Your task to perform on an android device: Add "razer blade" to the cart on target, then select checkout. Image 0: 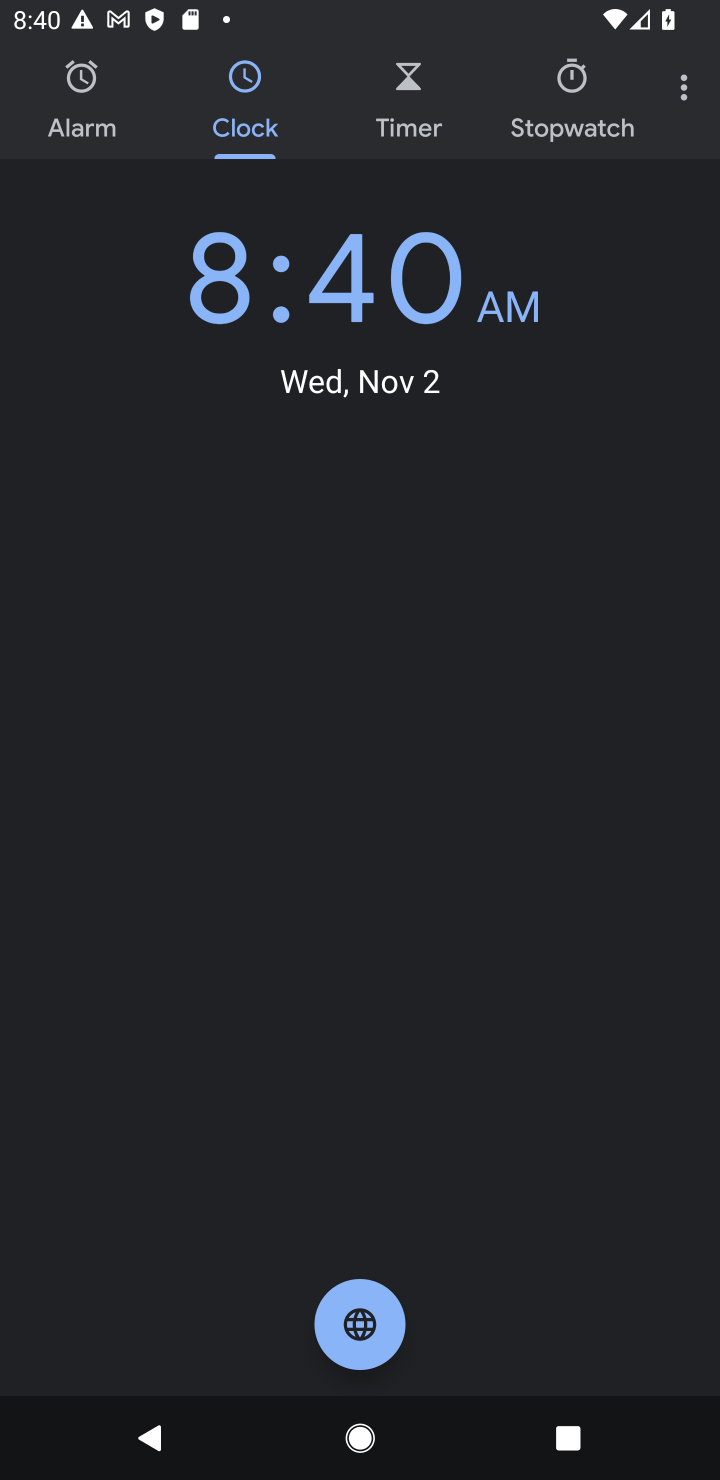
Step 0: press home button
Your task to perform on an android device: Add "razer blade" to the cart on target, then select checkout. Image 1: 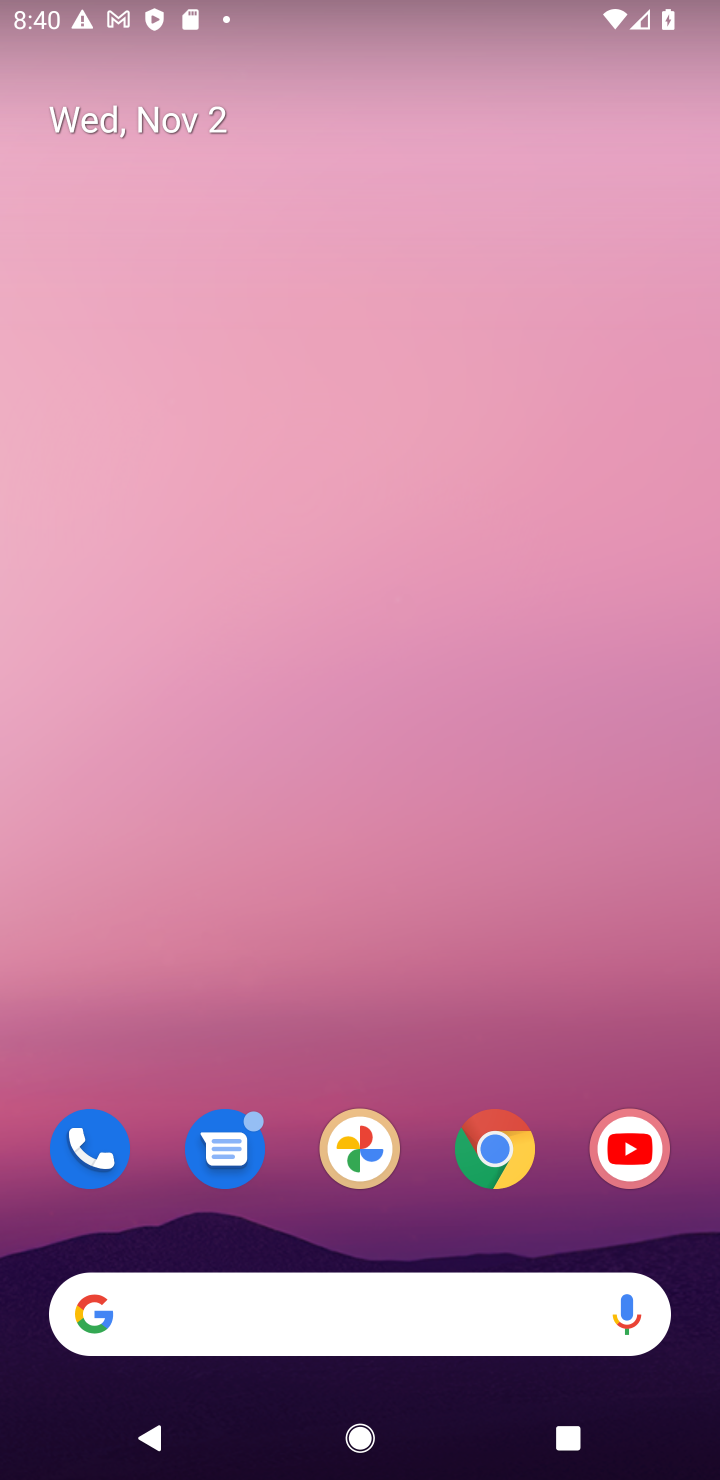
Step 1: click (506, 1148)
Your task to perform on an android device: Add "razer blade" to the cart on target, then select checkout. Image 2: 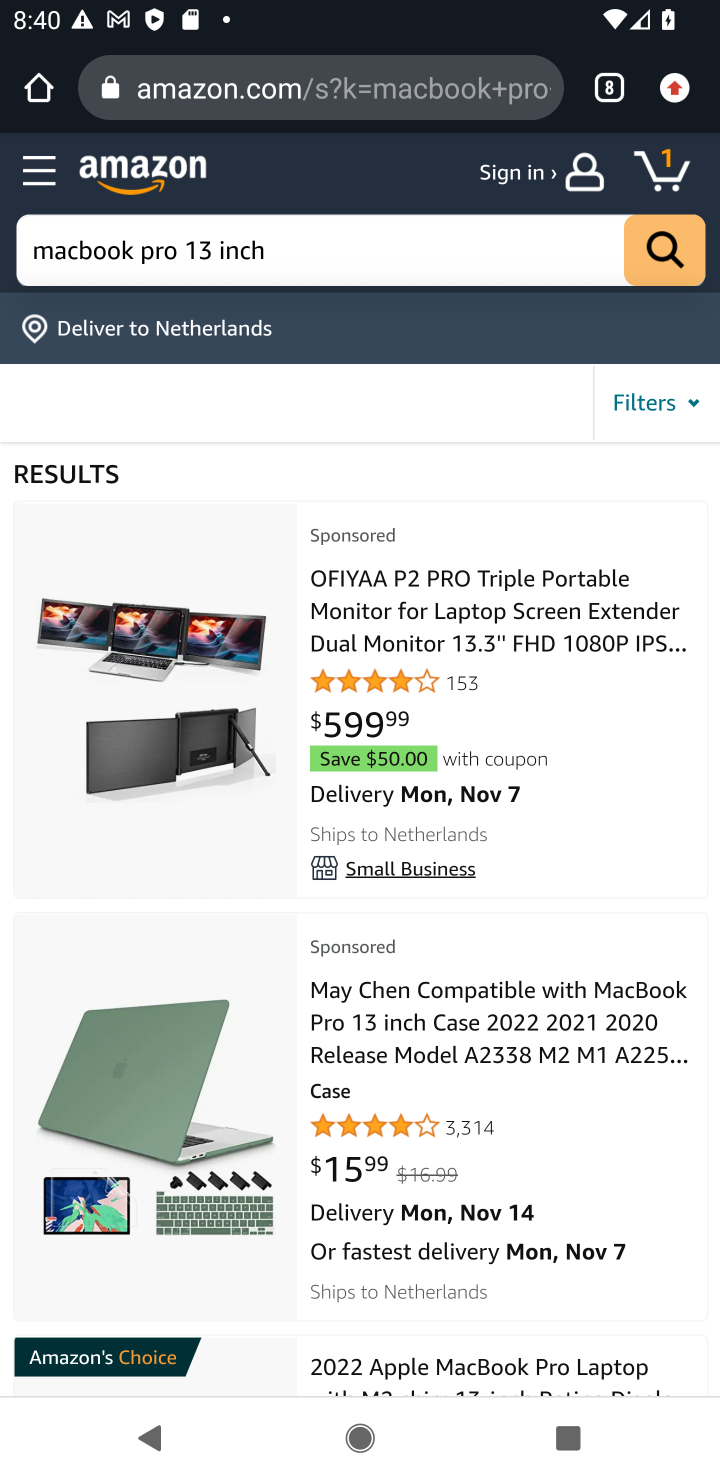
Step 2: drag from (682, 75) to (412, 288)
Your task to perform on an android device: Add "razer blade" to the cart on target, then select checkout. Image 3: 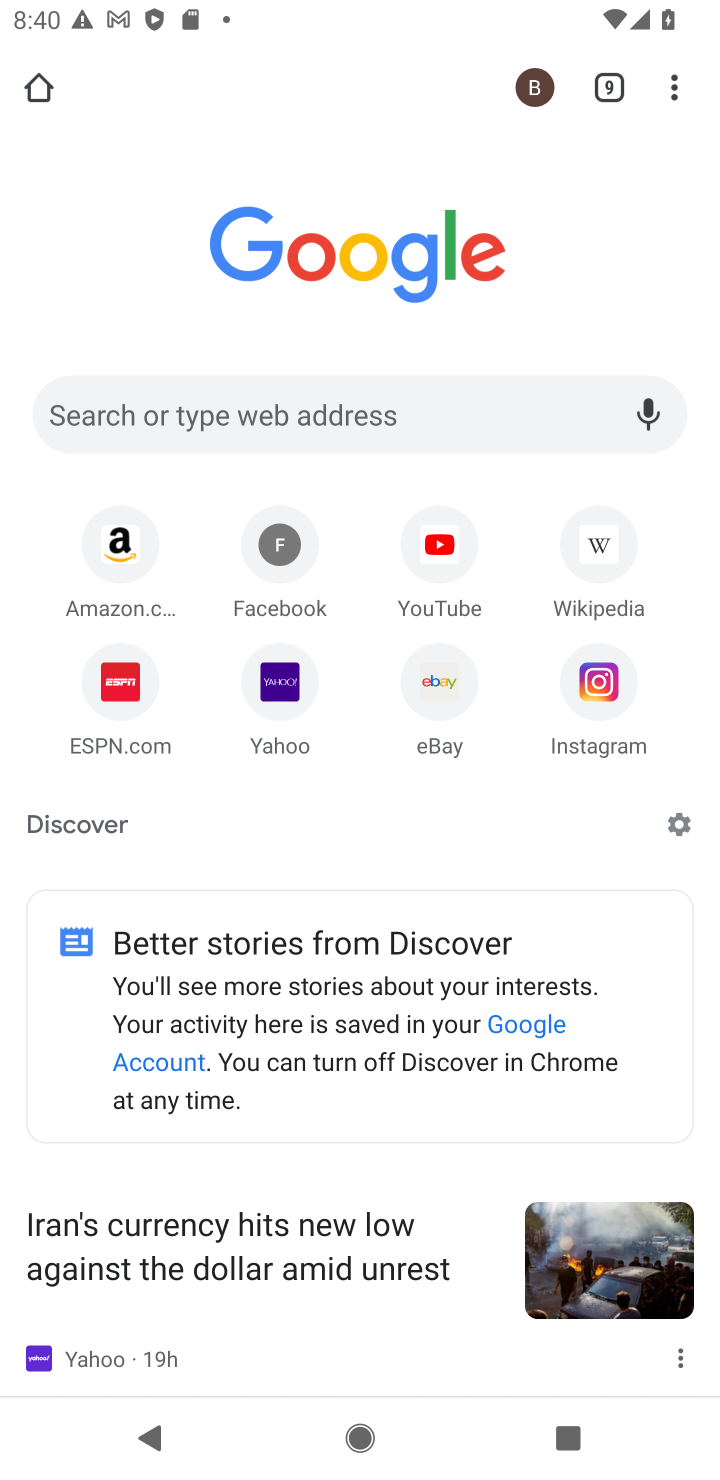
Step 3: click (270, 410)
Your task to perform on an android device: Add "razer blade" to the cart on target, then select checkout. Image 4: 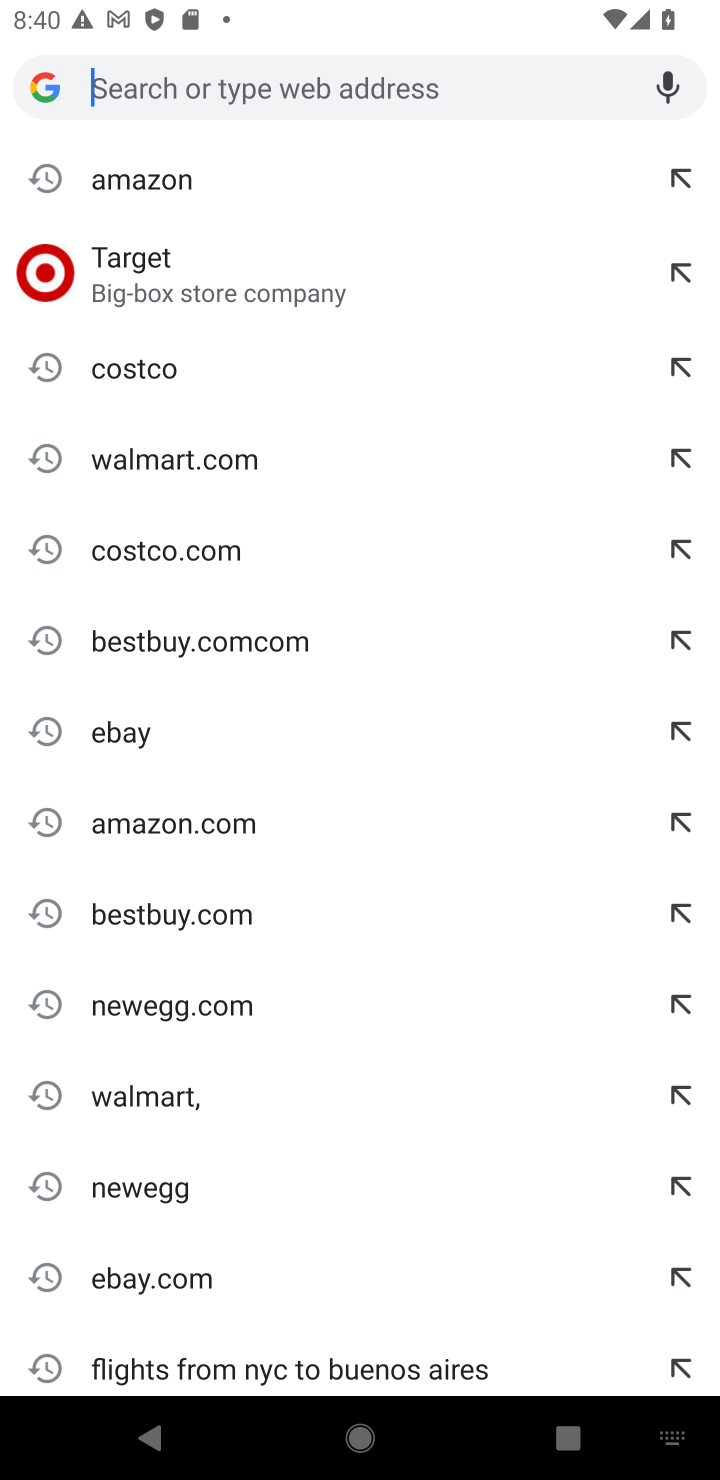
Step 4: type "target"
Your task to perform on an android device: Add "razer blade" to the cart on target, then select checkout. Image 5: 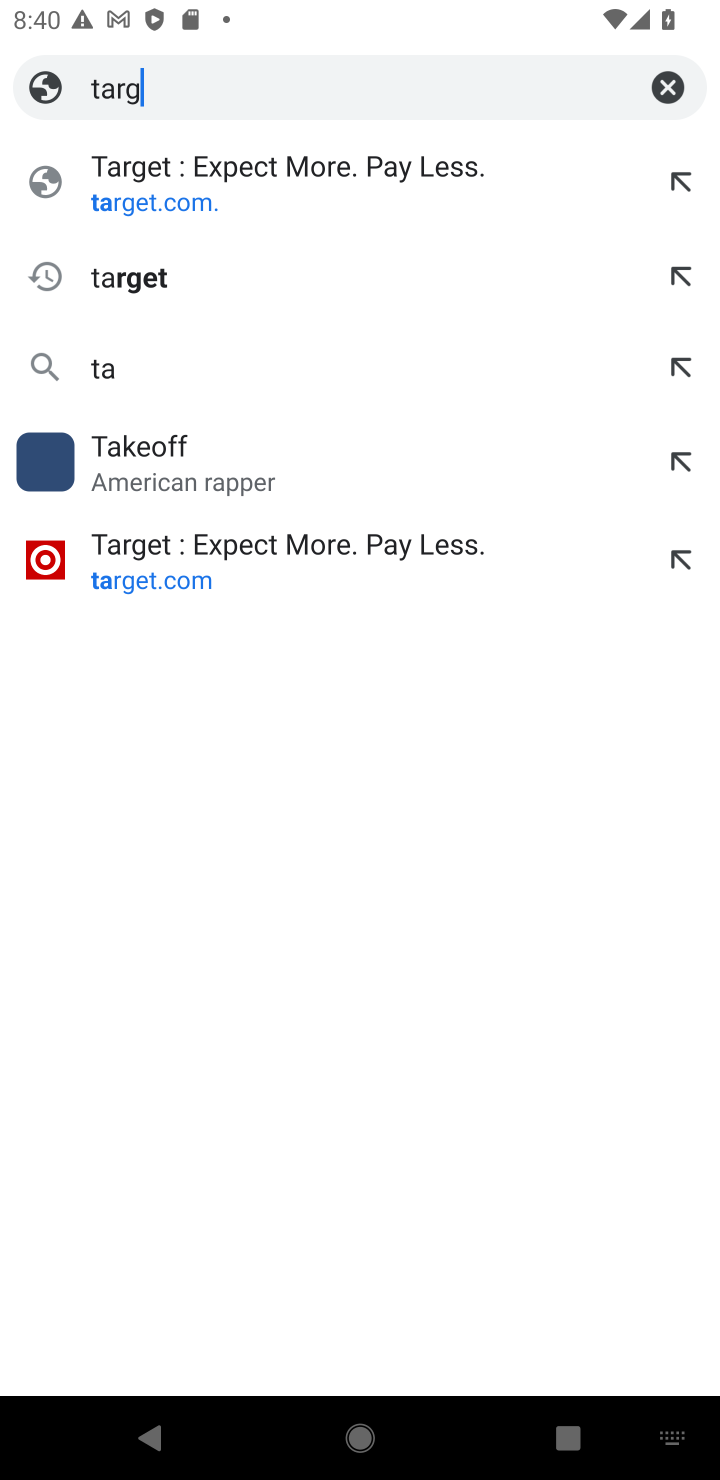
Step 5: type ""
Your task to perform on an android device: Add "razer blade" to the cart on target, then select checkout. Image 6: 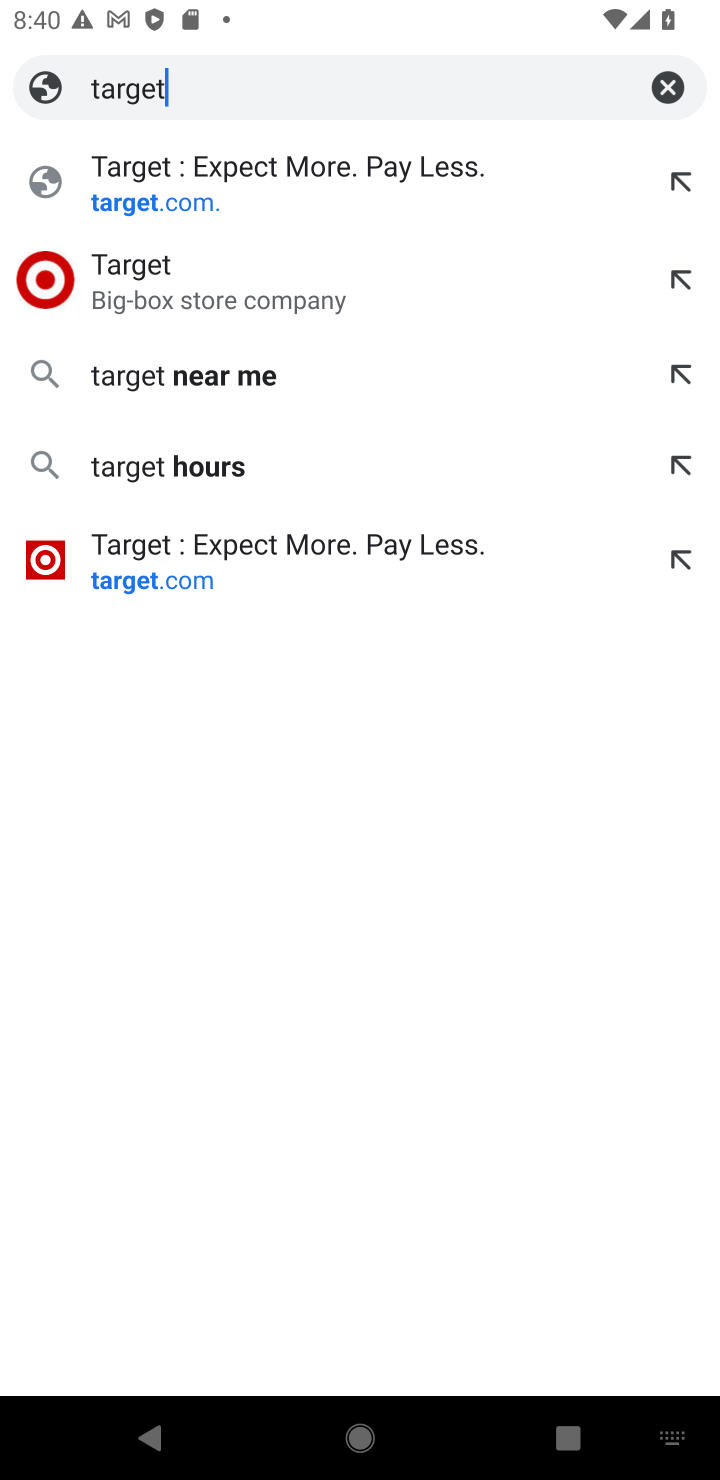
Step 6: click (143, 285)
Your task to perform on an android device: Add "razer blade" to the cart on target, then select checkout. Image 7: 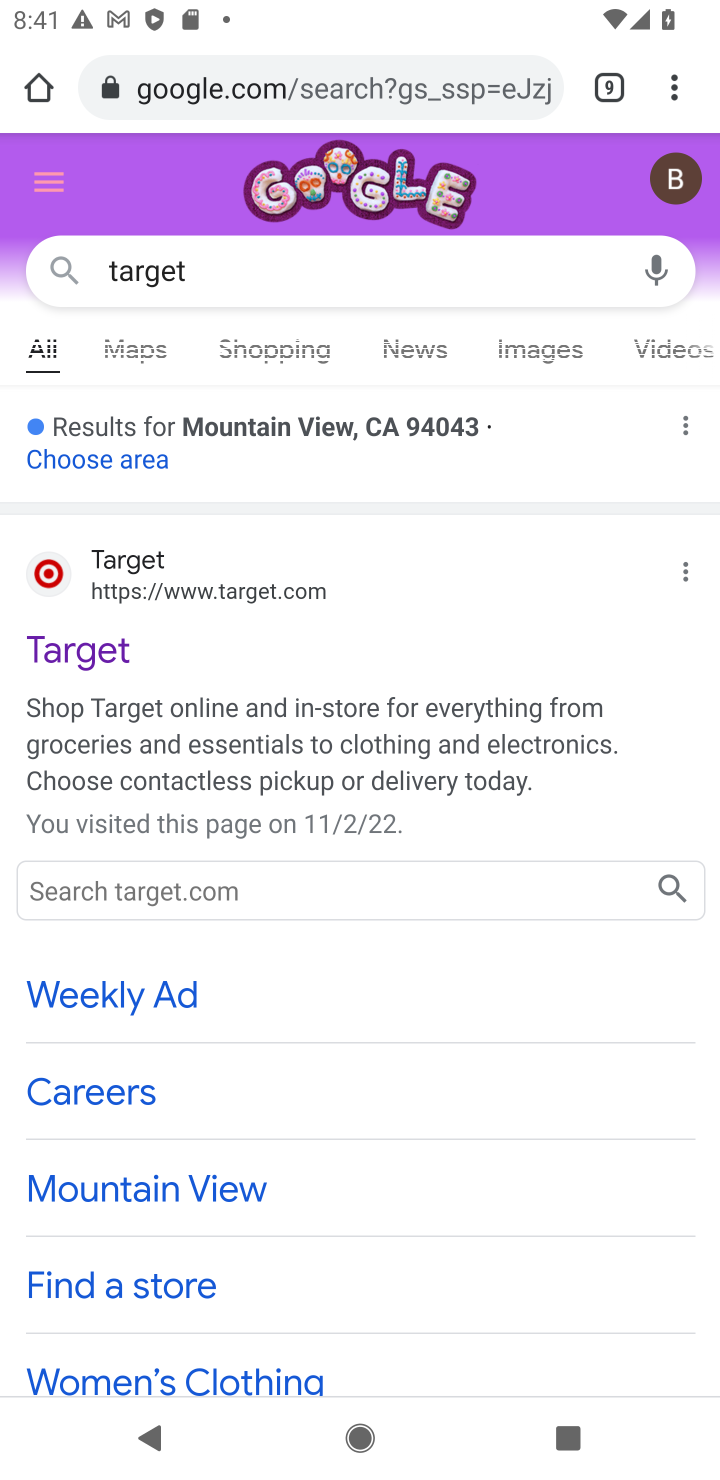
Step 7: click (9, 592)
Your task to perform on an android device: Add "razer blade" to the cart on target, then select checkout. Image 8: 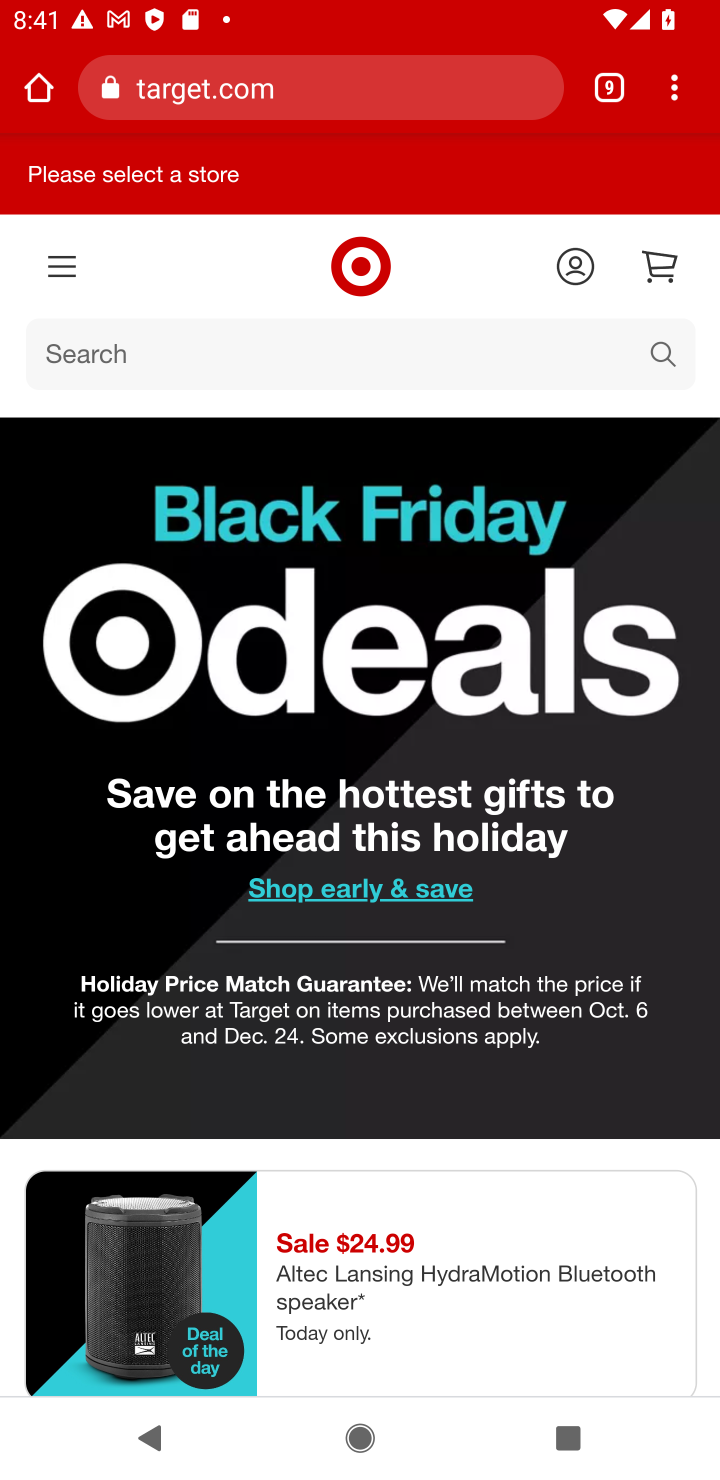
Step 8: click (217, 365)
Your task to perform on an android device: Add "razer blade" to the cart on target, then select checkout. Image 9: 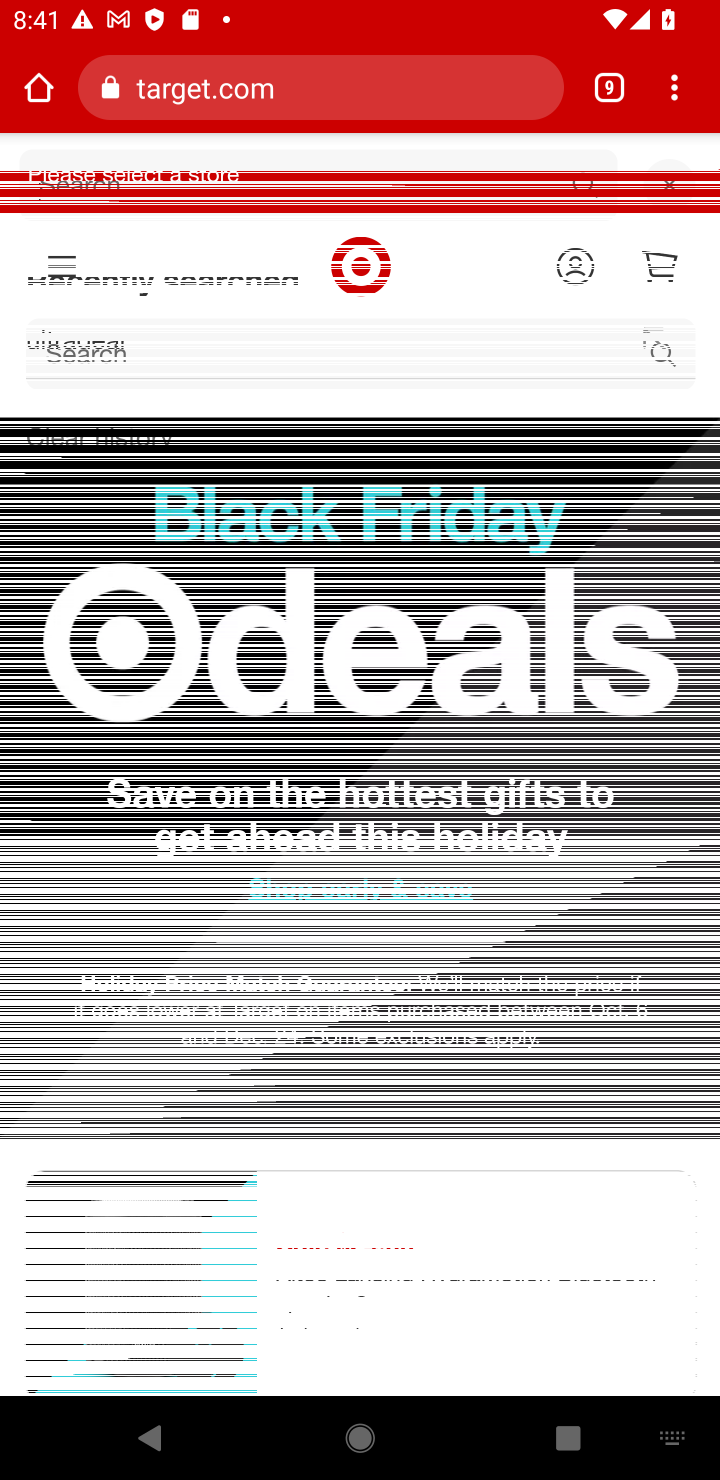
Step 9: type "razer blade"
Your task to perform on an android device: Add "razer blade" to the cart on target, then select checkout. Image 10: 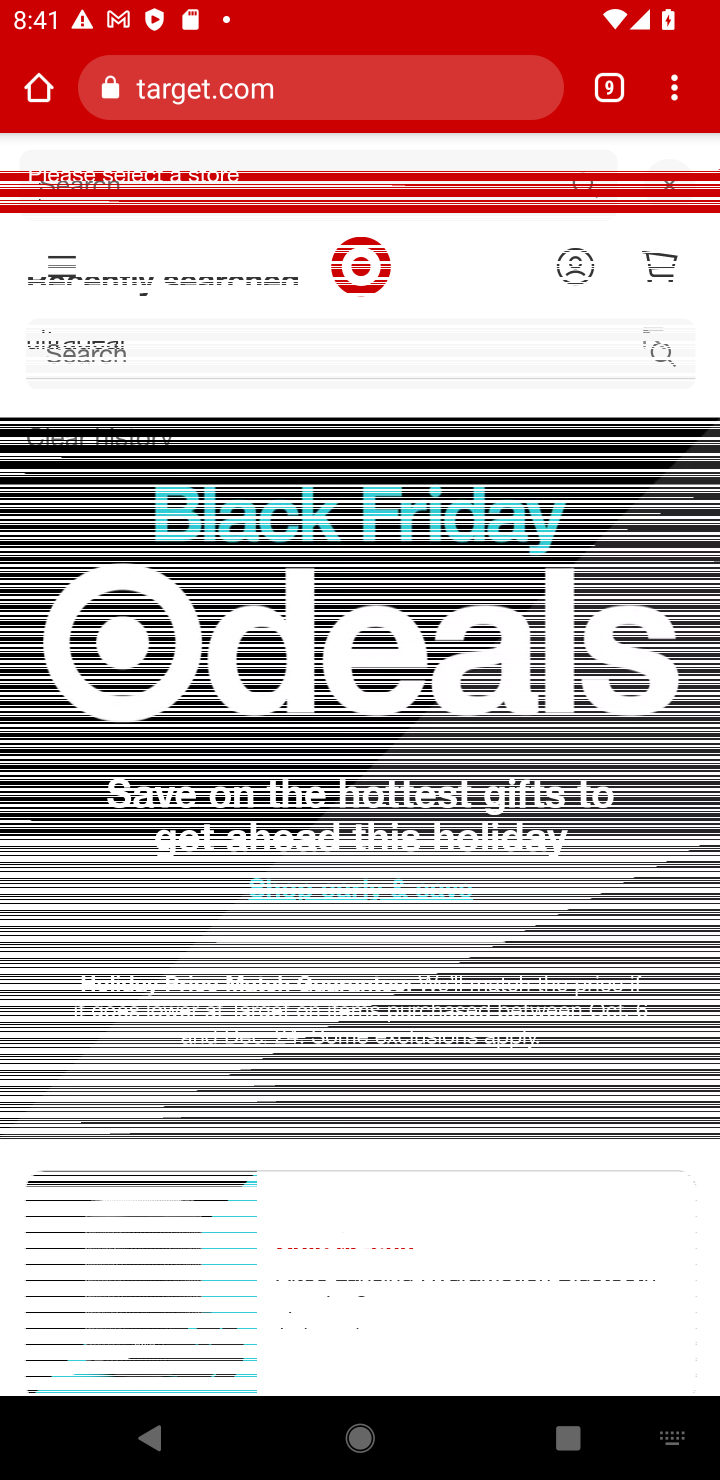
Step 10: type ""
Your task to perform on an android device: Add "razer blade" to the cart on target, then select checkout. Image 11: 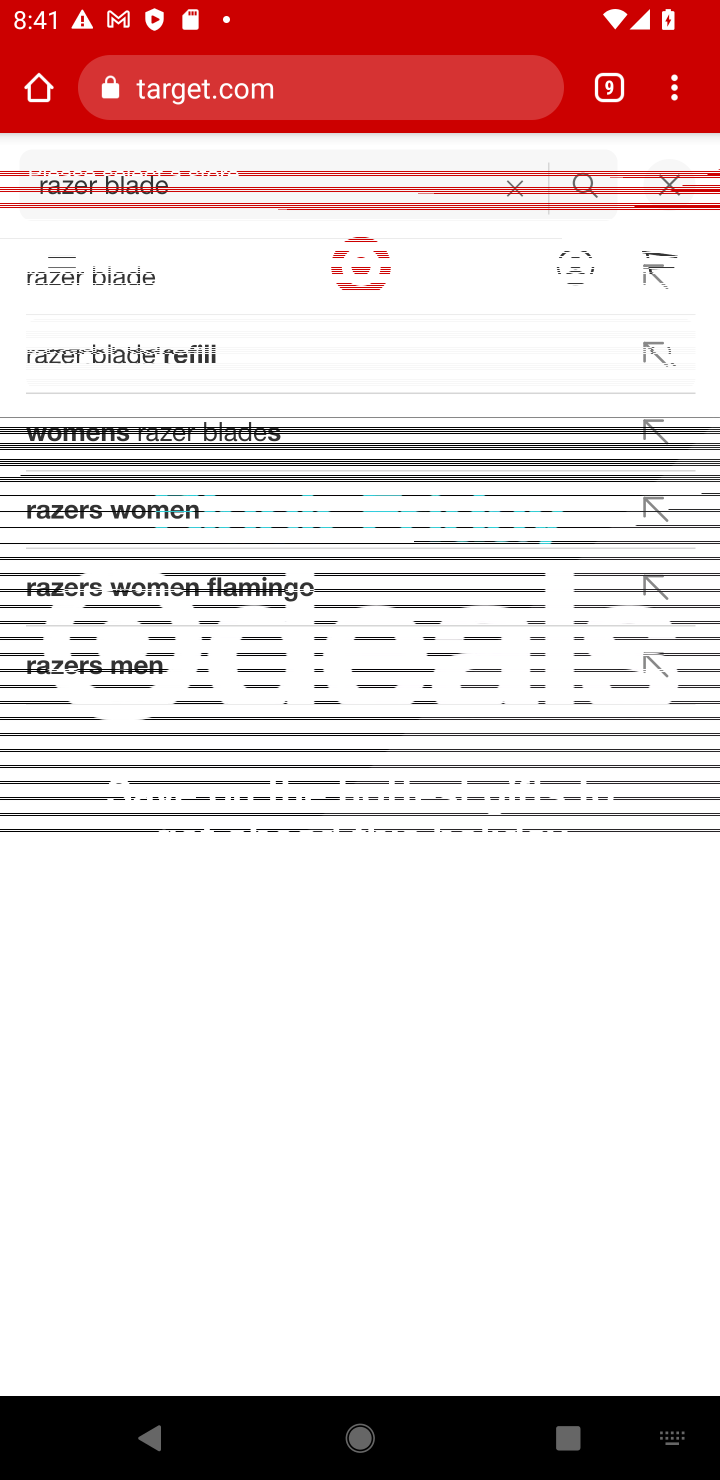
Step 11: click (104, 278)
Your task to perform on an android device: Add "razer blade" to the cart on target, then select checkout. Image 12: 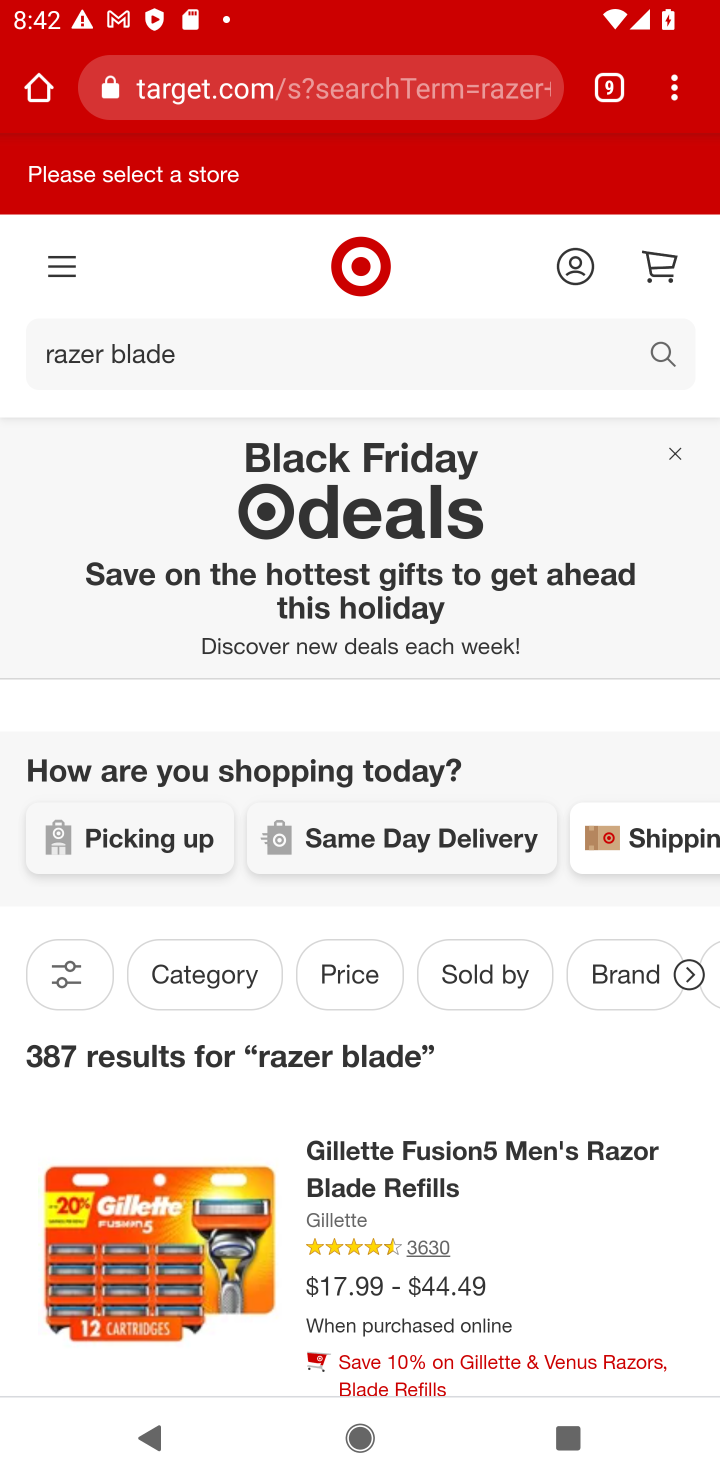
Step 12: drag from (445, 1283) to (519, 965)
Your task to perform on an android device: Add "razer blade" to the cart on target, then select checkout. Image 13: 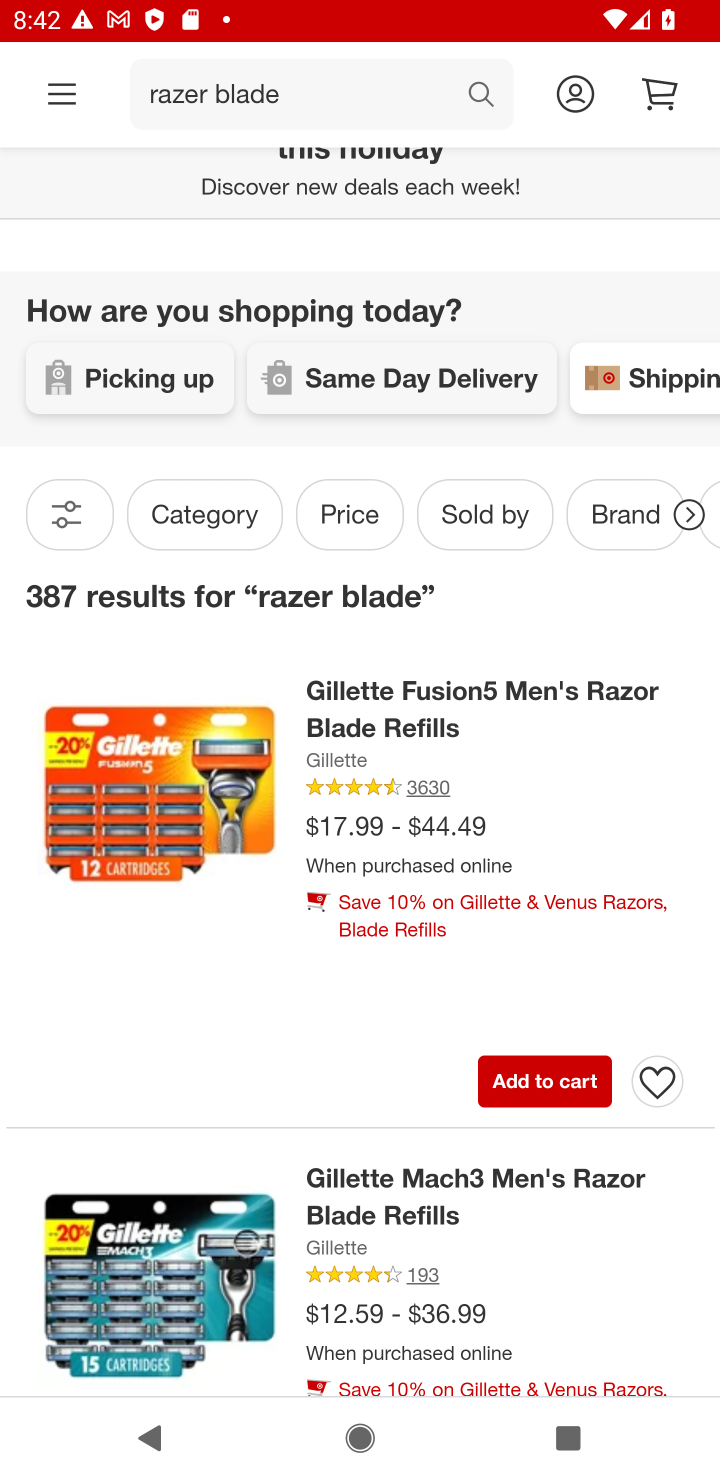
Step 13: click (557, 1081)
Your task to perform on an android device: Add "razer blade" to the cart on target, then select checkout. Image 14: 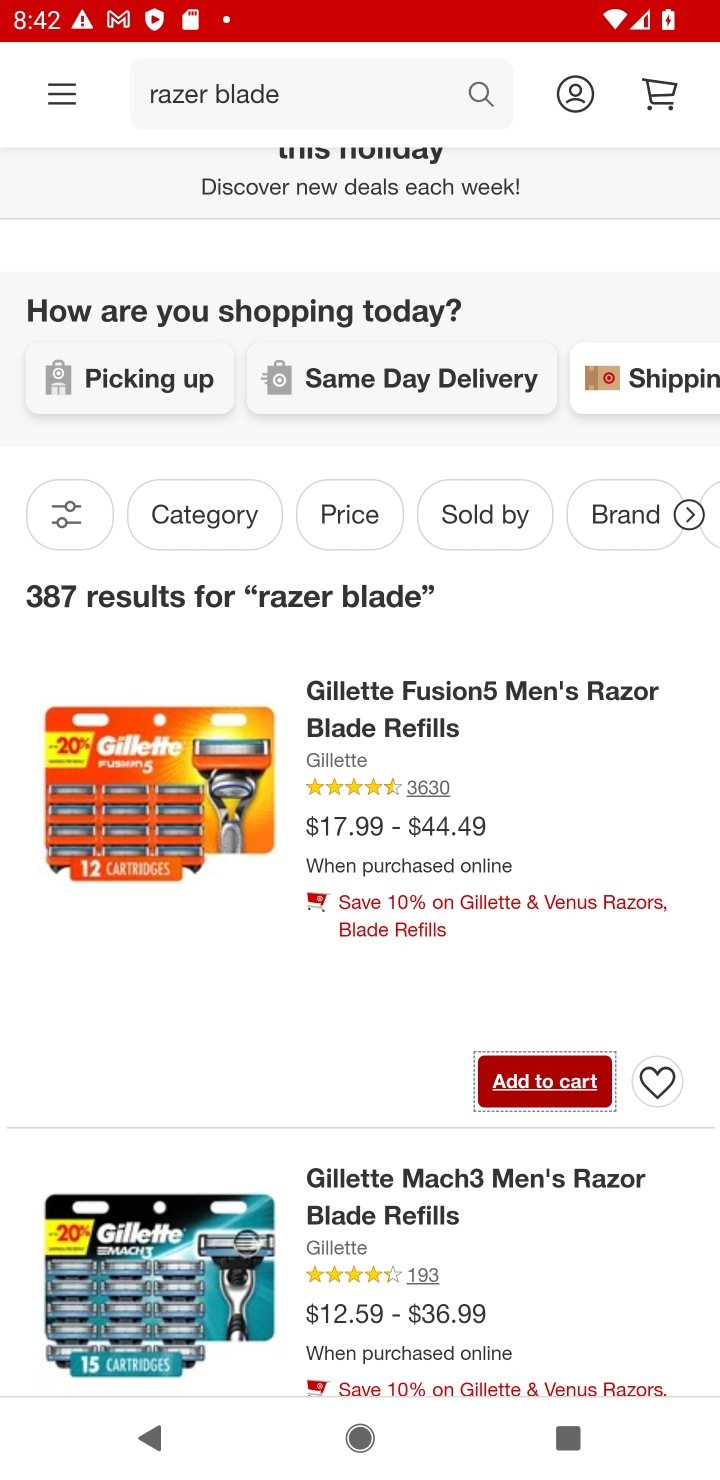
Step 14: click (555, 1083)
Your task to perform on an android device: Add "razer blade" to the cart on target, then select checkout. Image 15: 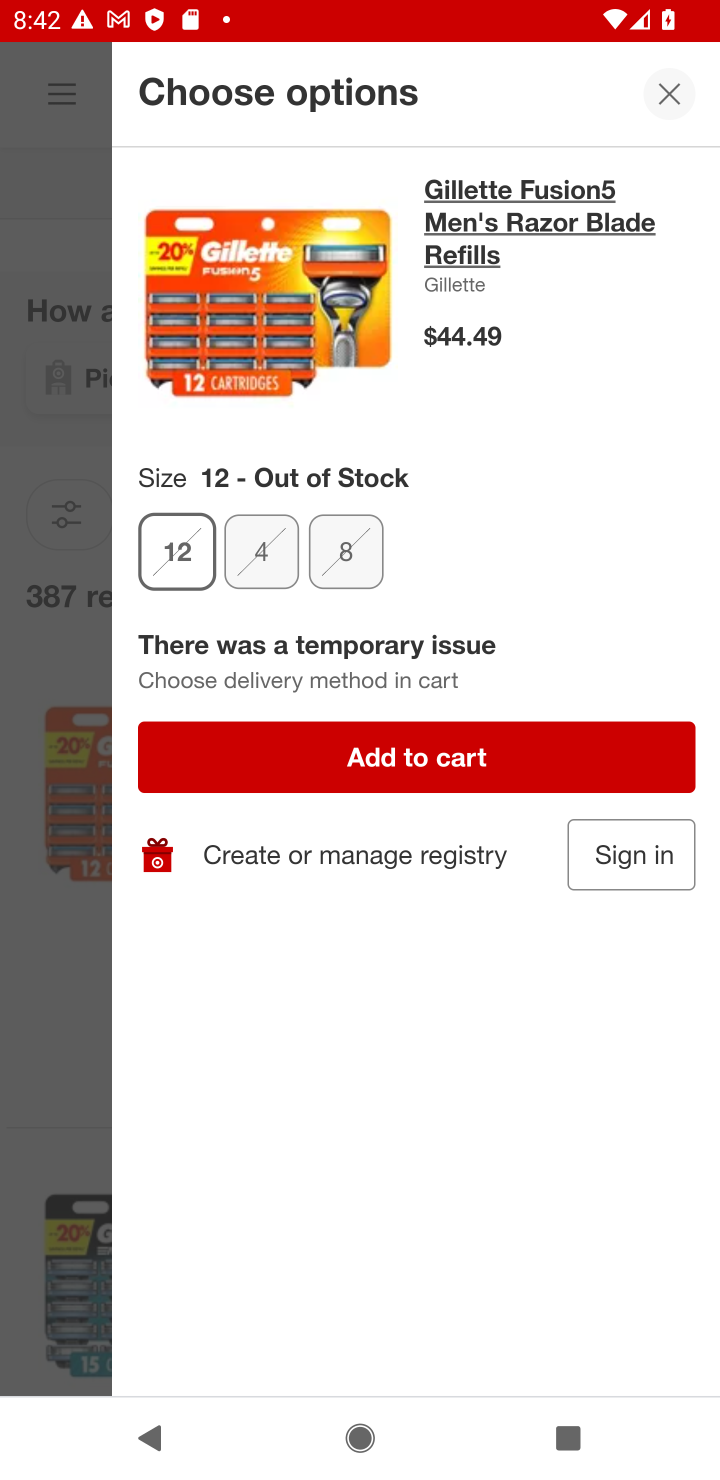
Step 15: click (376, 773)
Your task to perform on an android device: Add "razer blade" to the cart on target, then select checkout. Image 16: 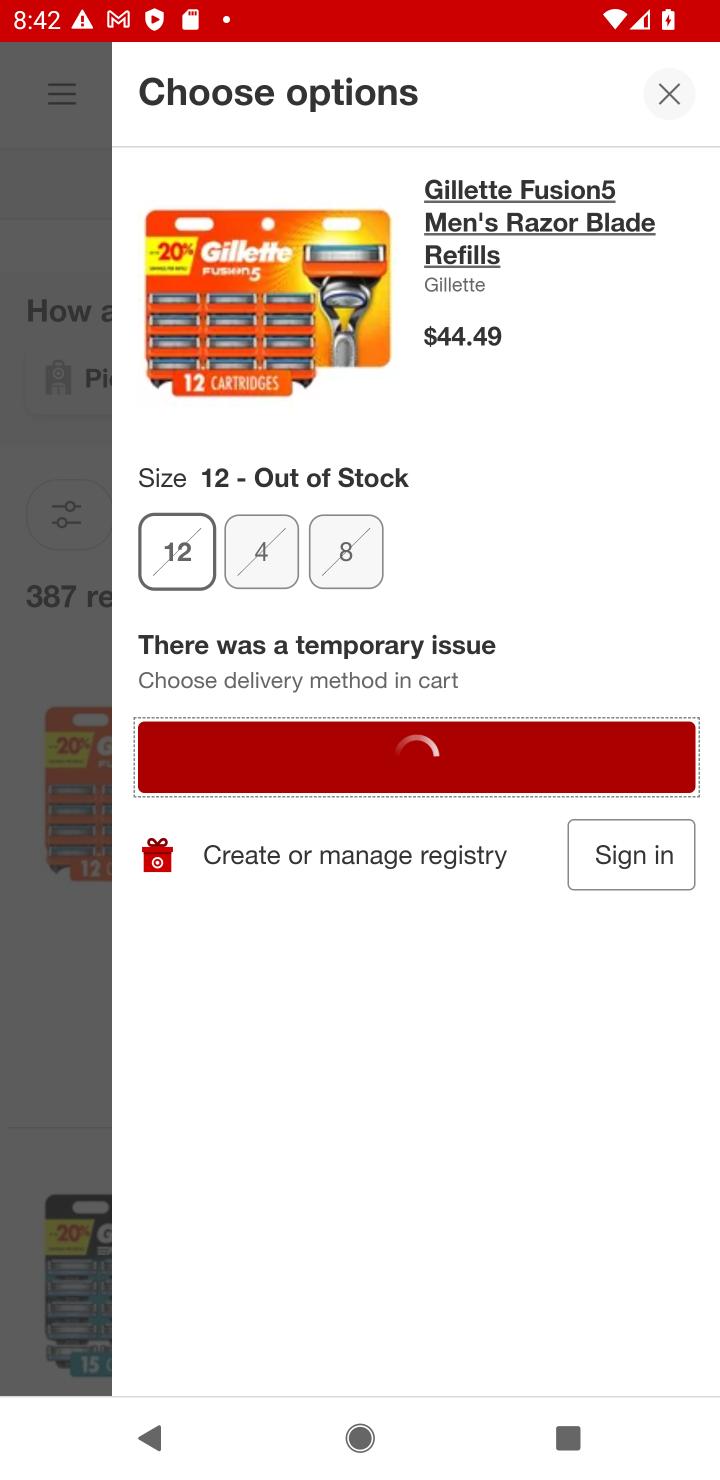
Step 16: task complete